Your task to perform on an android device: open chrome privacy settings Image 0: 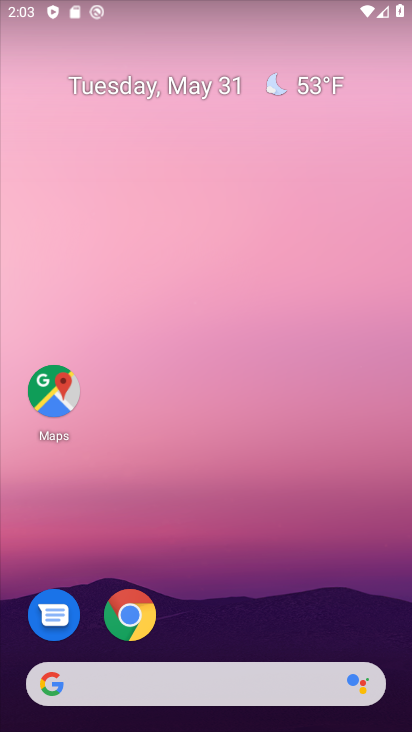
Step 0: drag from (307, 568) to (314, 135)
Your task to perform on an android device: open chrome privacy settings Image 1: 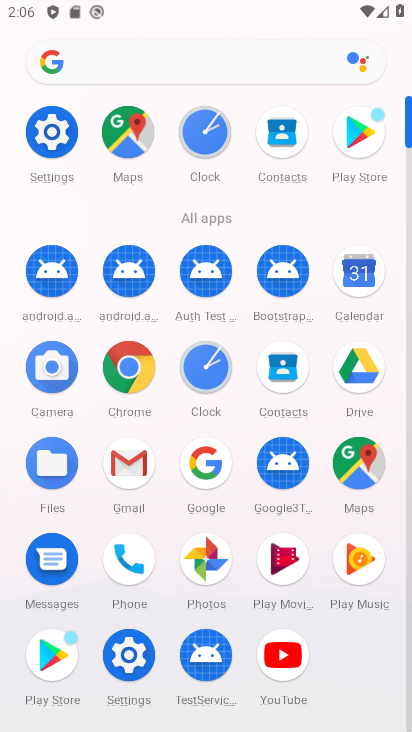
Step 1: click (69, 144)
Your task to perform on an android device: open chrome privacy settings Image 2: 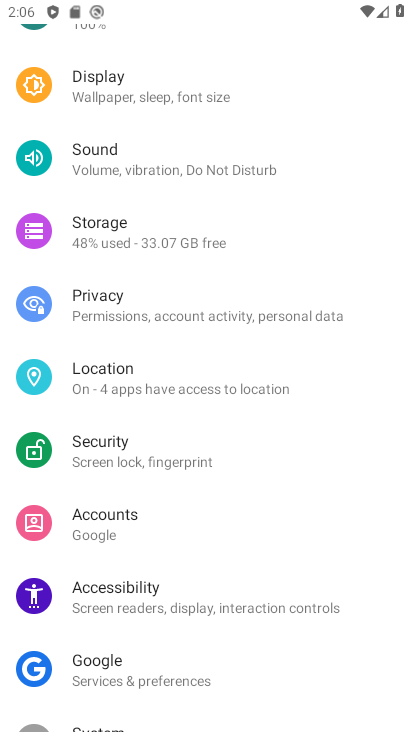
Step 2: click (116, 301)
Your task to perform on an android device: open chrome privacy settings Image 3: 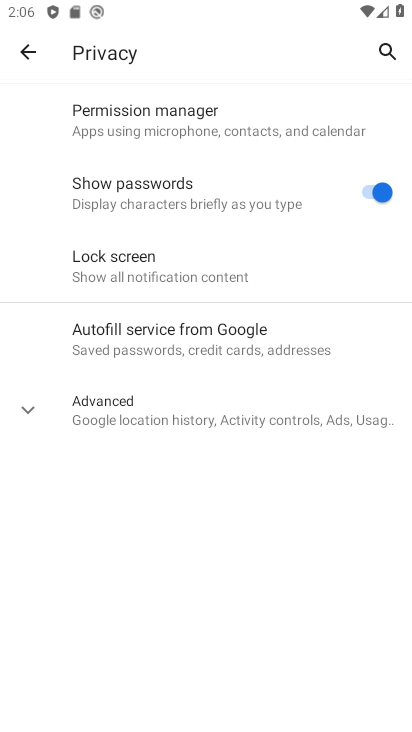
Step 3: task complete